Your task to perform on an android device: toggle wifi Image 0: 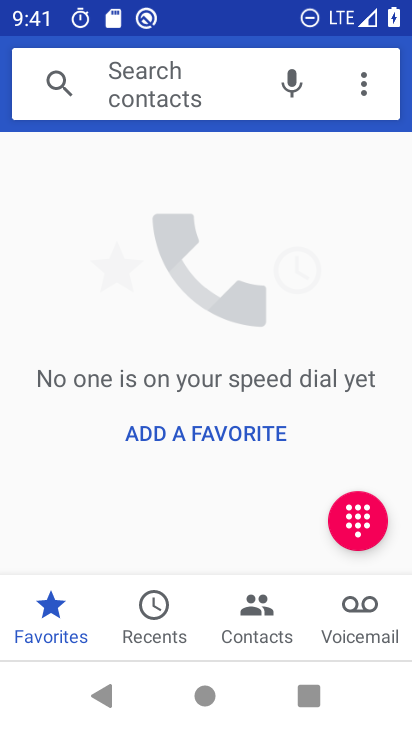
Step 0: drag from (405, 626) to (387, 171)
Your task to perform on an android device: toggle wifi Image 1: 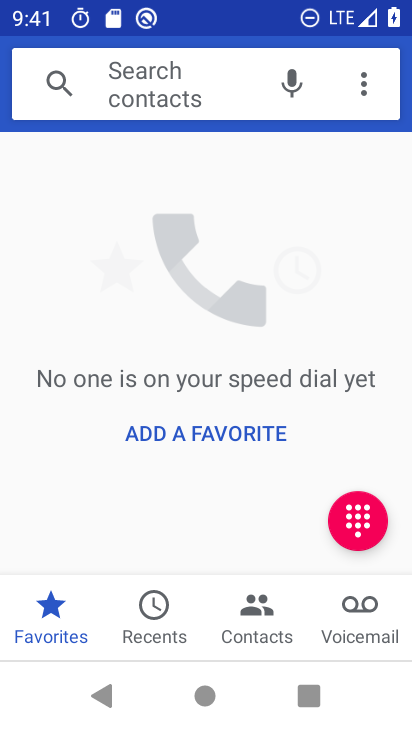
Step 1: press home button
Your task to perform on an android device: toggle wifi Image 2: 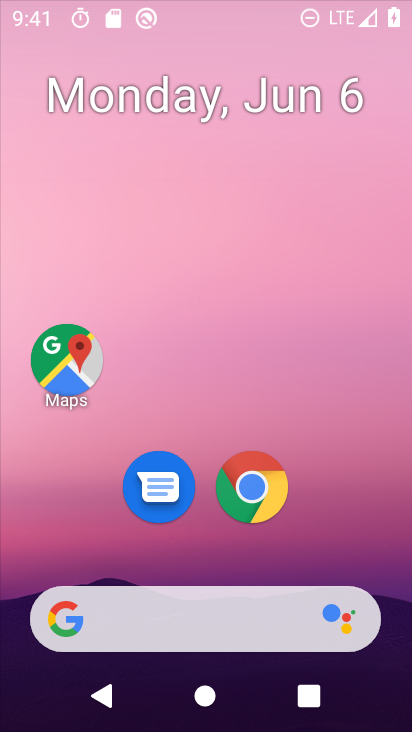
Step 2: drag from (398, 625) to (338, 208)
Your task to perform on an android device: toggle wifi Image 3: 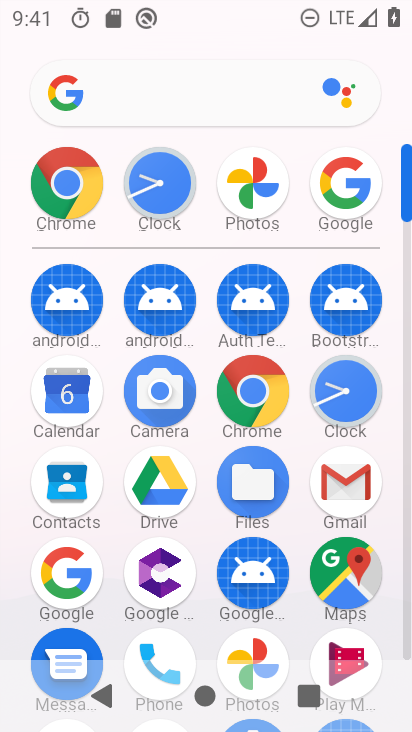
Step 3: click (288, 89)
Your task to perform on an android device: toggle wifi Image 4: 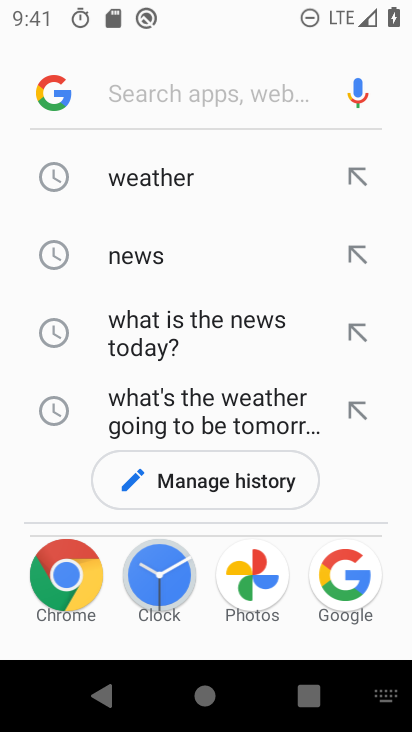
Step 4: press home button
Your task to perform on an android device: toggle wifi Image 5: 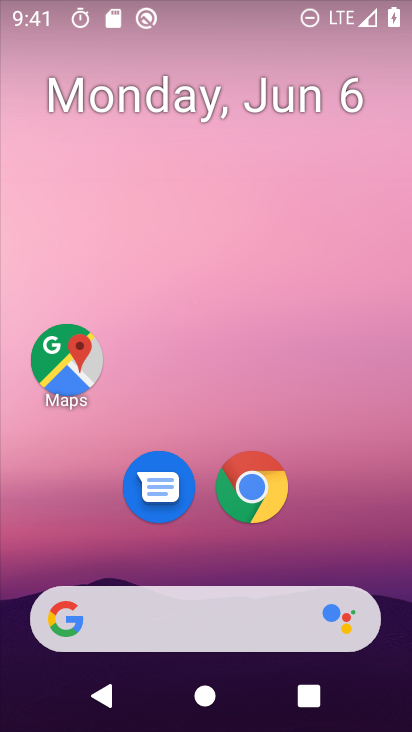
Step 5: drag from (186, 5) to (244, 455)
Your task to perform on an android device: toggle wifi Image 6: 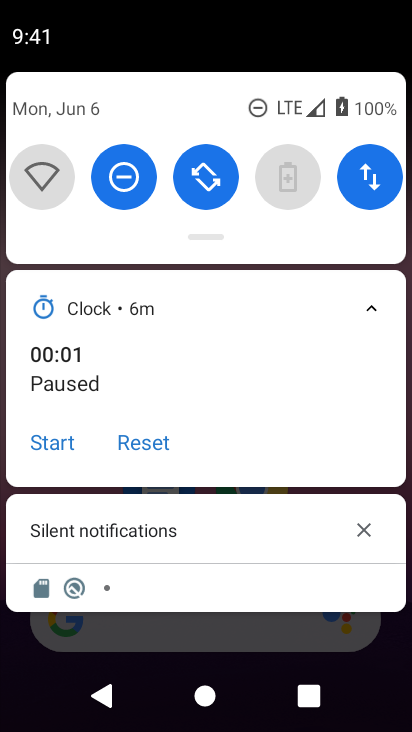
Step 6: click (44, 174)
Your task to perform on an android device: toggle wifi Image 7: 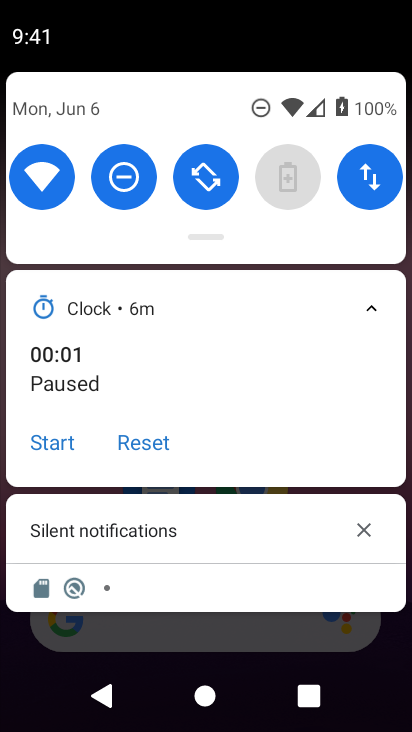
Step 7: task complete